Your task to perform on an android device: Open the calendar app, open the side menu, and click the "Day" option Image 0: 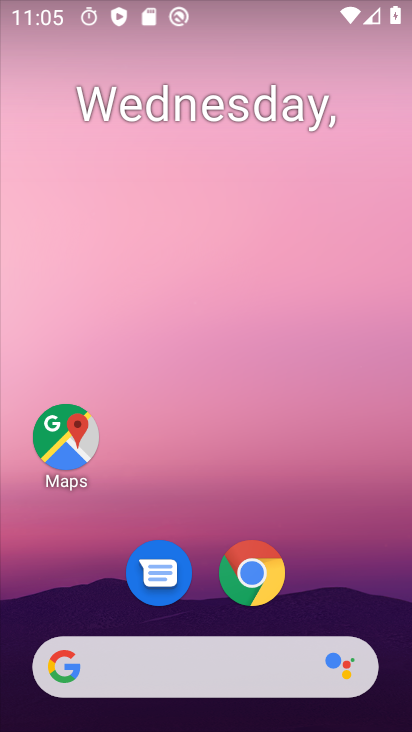
Step 0: drag from (387, 637) to (383, 164)
Your task to perform on an android device: Open the calendar app, open the side menu, and click the "Day" option Image 1: 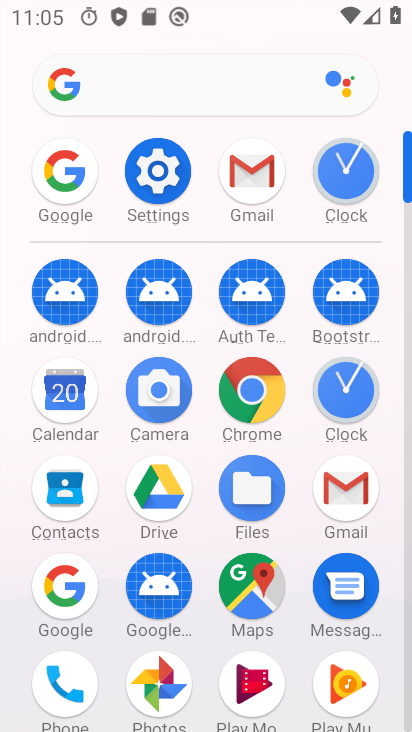
Step 1: click (55, 394)
Your task to perform on an android device: Open the calendar app, open the side menu, and click the "Day" option Image 2: 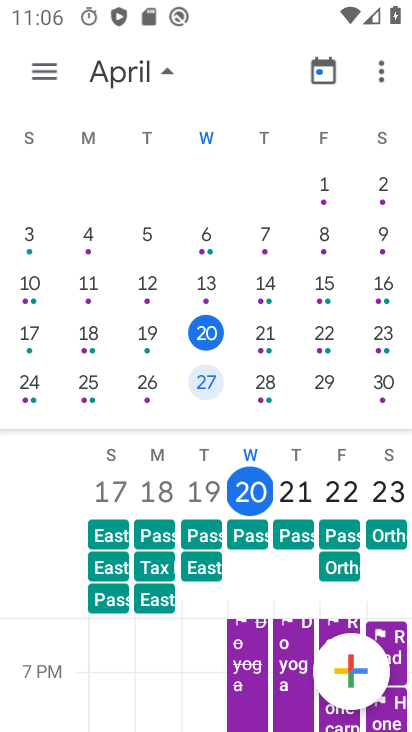
Step 2: click (40, 66)
Your task to perform on an android device: Open the calendar app, open the side menu, and click the "Day" option Image 3: 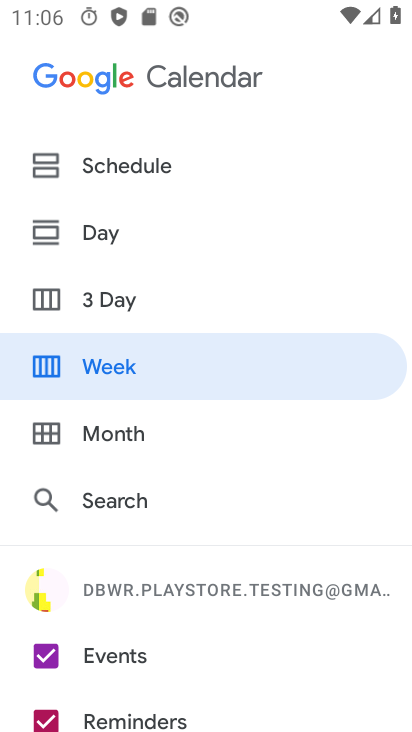
Step 3: drag from (305, 169) to (317, 592)
Your task to perform on an android device: Open the calendar app, open the side menu, and click the "Day" option Image 4: 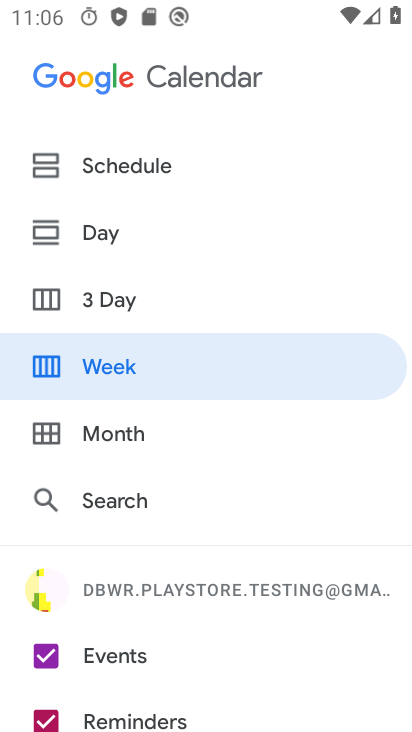
Step 4: click (61, 231)
Your task to perform on an android device: Open the calendar app, open the side menu, and click the "Day" option Image 5: 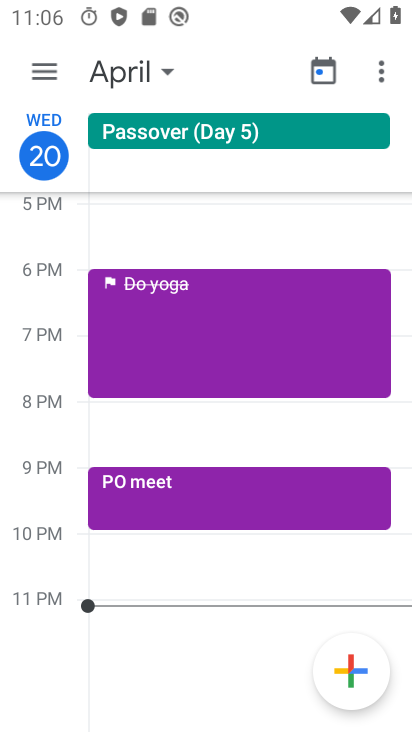
Step 5: task complete